Your task to perform on an android device: clear all cookies in the chrome app Image 0: 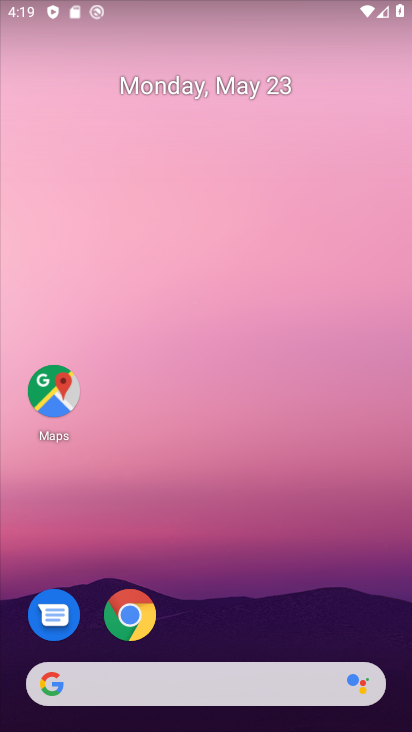
Step 0: click (144, 608)
Your task to perform on an android device: clear all cookies in the chrome app Image 1: 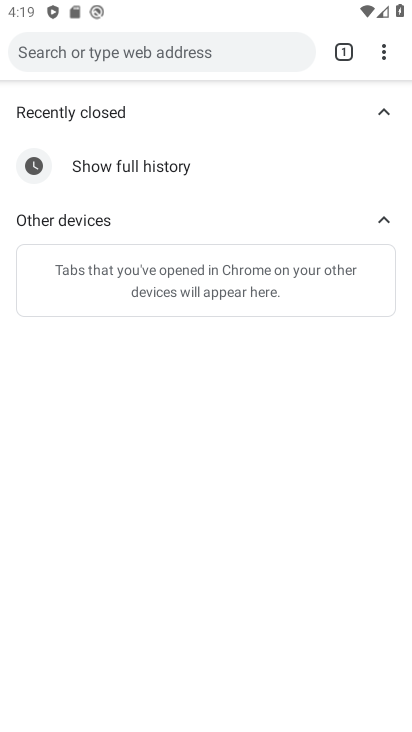
Step 1: click (382, 49)
Your task to perform on an android device: clear all cookies in the chrome app Image 2: 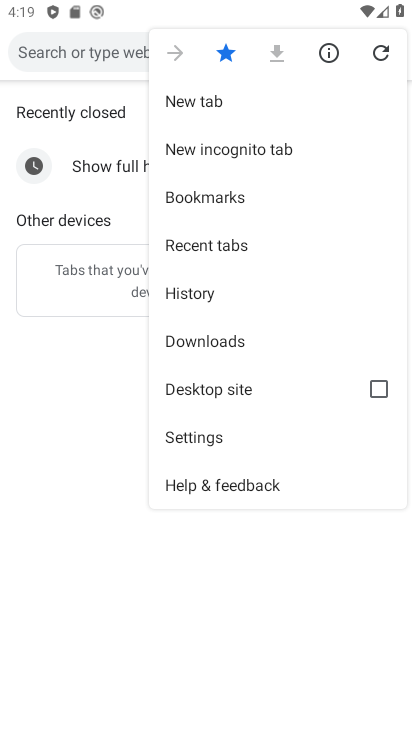
Step 2: click (214, 432)
Your task to perform on an android device: clear all cookies in the chrome app Image 3: 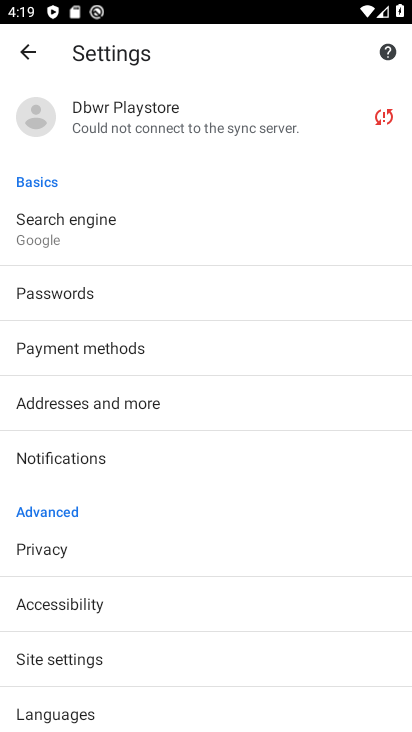
Step 3: click (103, 555)
Your task to perform on an android device: clear all cookies in the chrome app Image 4: 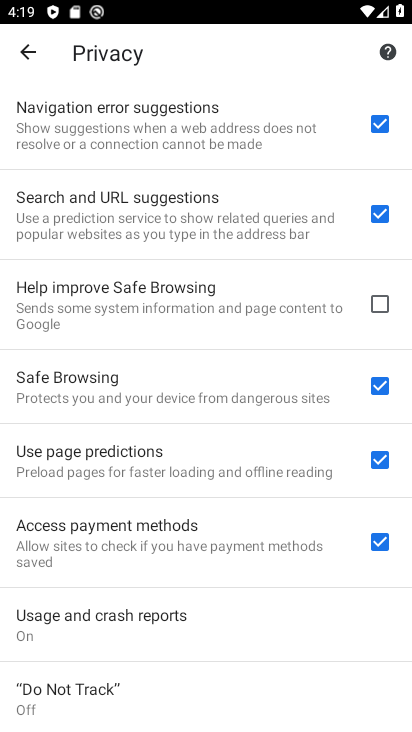
Step 4: drag from (188, 641) to (264, 145)
Your task to perform on an android device: clear all cookies in the chrome app Image 5: 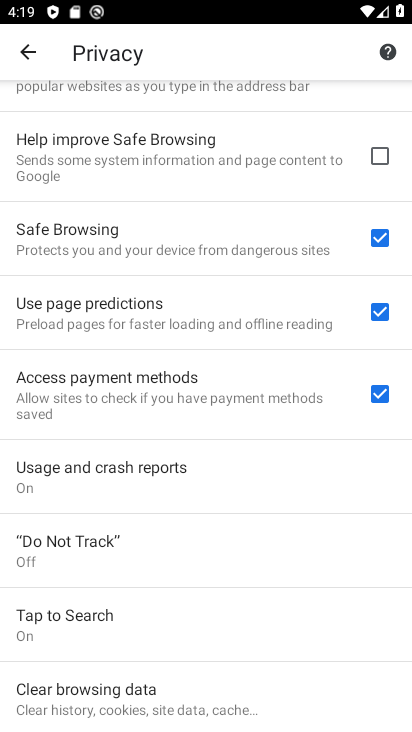
Step 5: click (232, 704)
Your task to perform on an android device: clear all cookies in the chrome app Image 6: 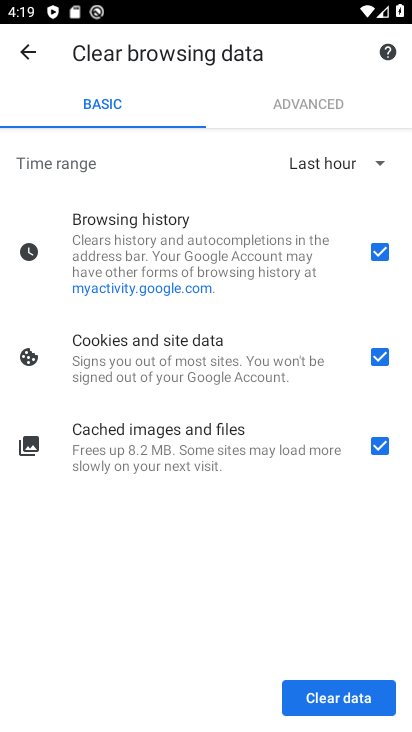
Step 6: click (385, 439)
Your task to perform on an android device: clear all cookies in the chrome app Image 7: 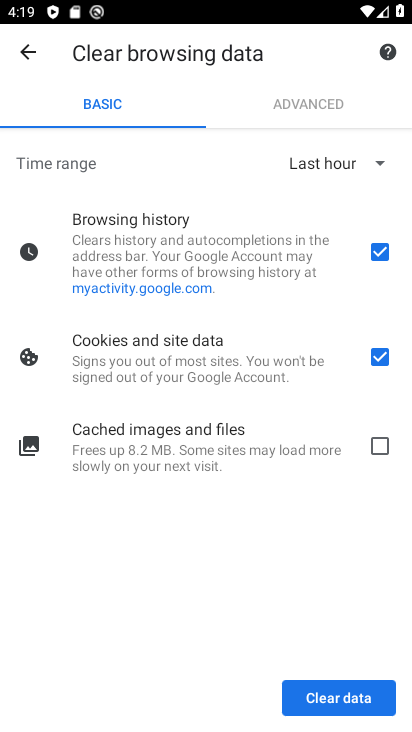
Step 7: click (376, 246)
Your task to perform on an android device: clear all cookies in the chrome app Image 8: 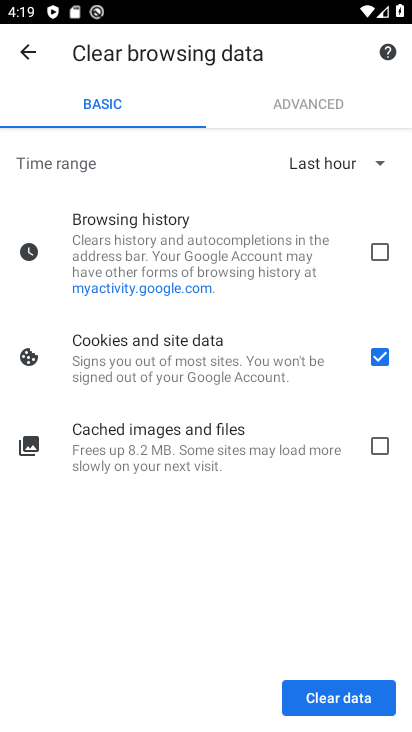
Step 8: click (378, 695)
Your task to perform on an android device: clear all cookies in the chrome app Image 9: 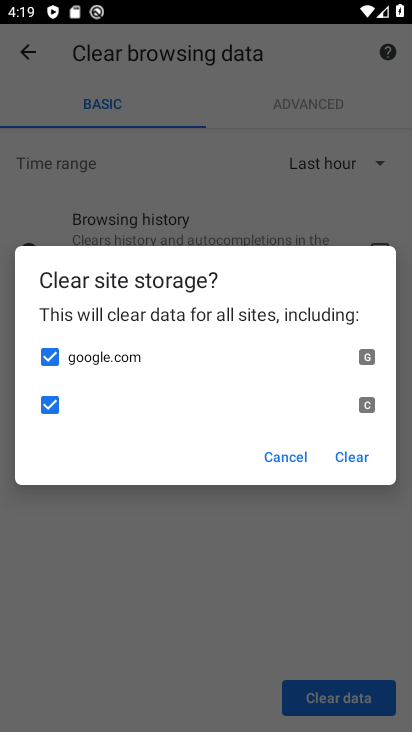
Step 9: click (353, 449)
Your task to perform on an android device: clear all cookies in the chrome app Image 10: 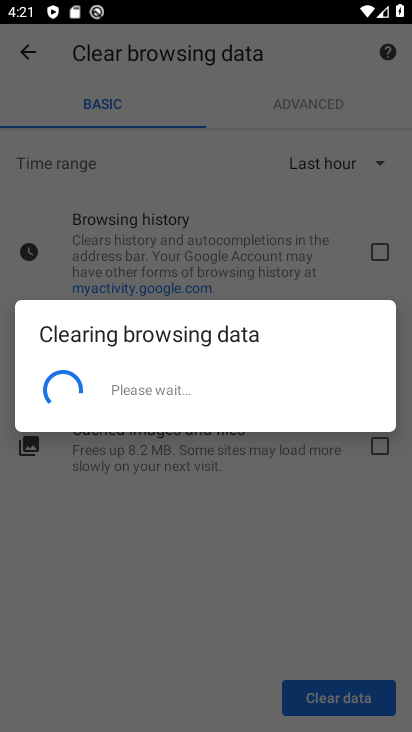
Step 10: task complete